Your task to perform on an android device: read, delete, or share a saved page in the chrome app Image 0: 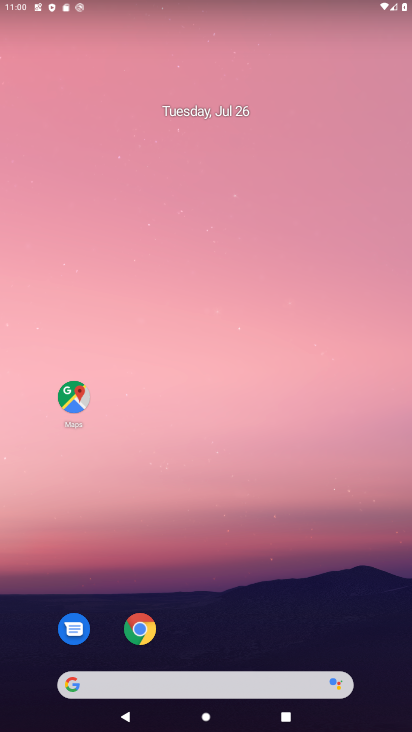
Step 0: click (144, 625)
Your task to perform on an android device: read, delete, or share a saved page in the chrome app Image 1: 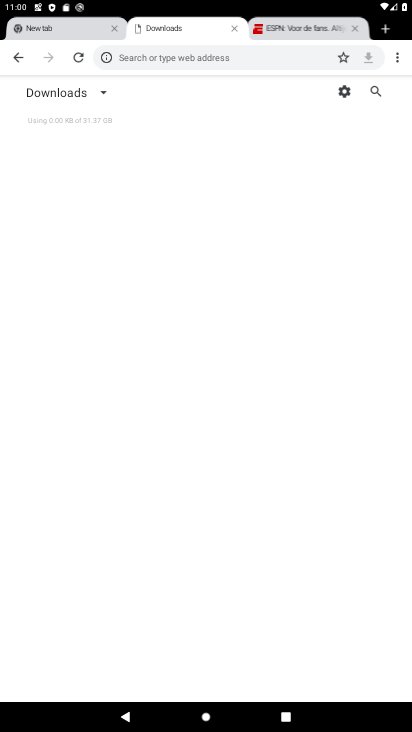
Step 1: click (393, 58)
Your task to perform on an android device: read, delete, or share a saved page in the chrome app Image 2: 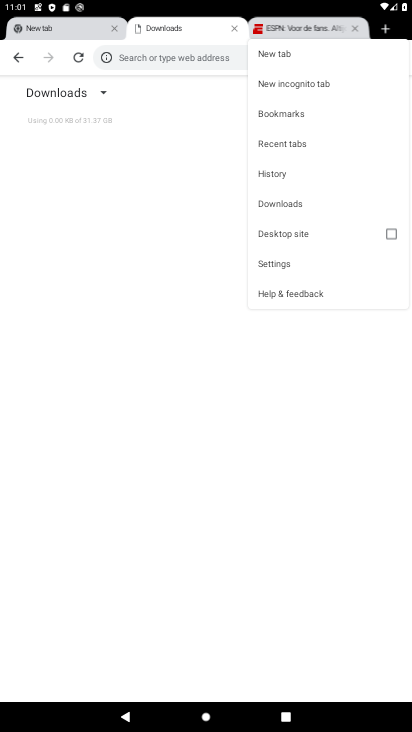
Step 2: click (288, 201)
Your task to perform on an android device: read, delete, or share a saved page in the chrome app Image 3: 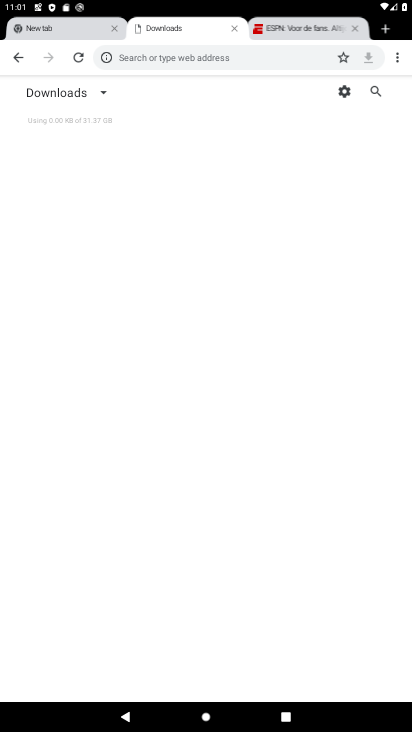
Step 3: task complete